Your task to perform on an android device: Search for the best coffee tables on Crate & Barrel Image 0: 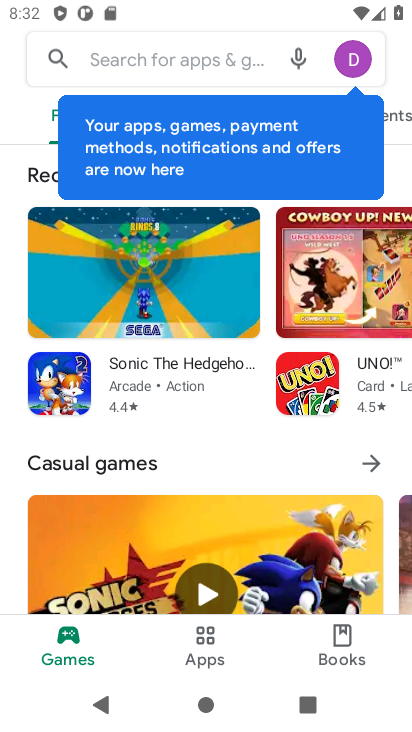
Step 0: press home button
Your task to perform on an android device: Search for the best coffee tables on Crate & Barrel Image 1: 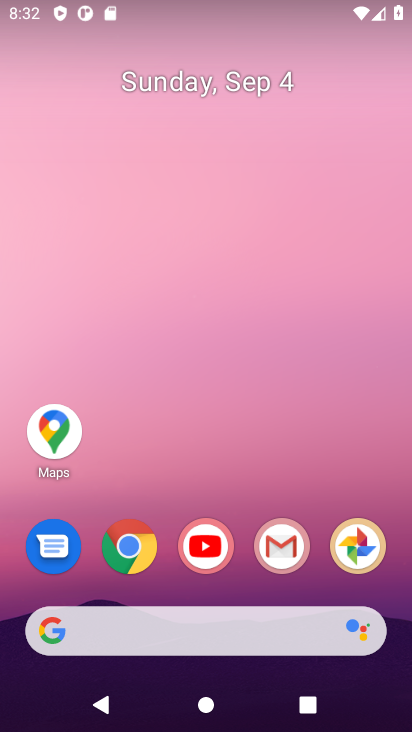
Step 1: click (133, 554)
Your task to perform on an android device: Search for the best coffee tables on Crate & Barrel Image 2: 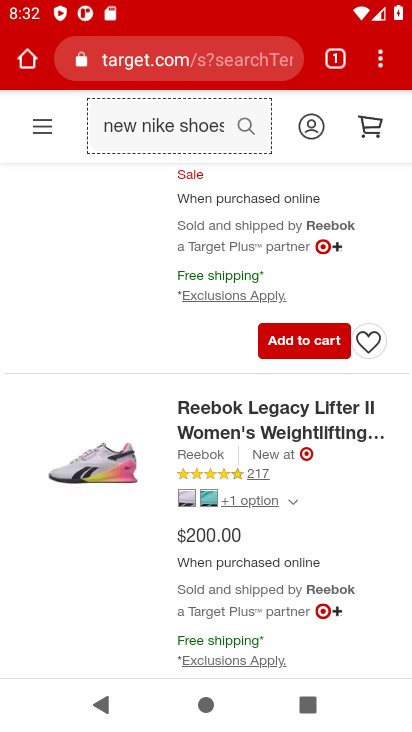
Step 2: click (234, 61)
Your task to perform on an android device: Search for the best coffee tables on Crate & Barrel Image 3: 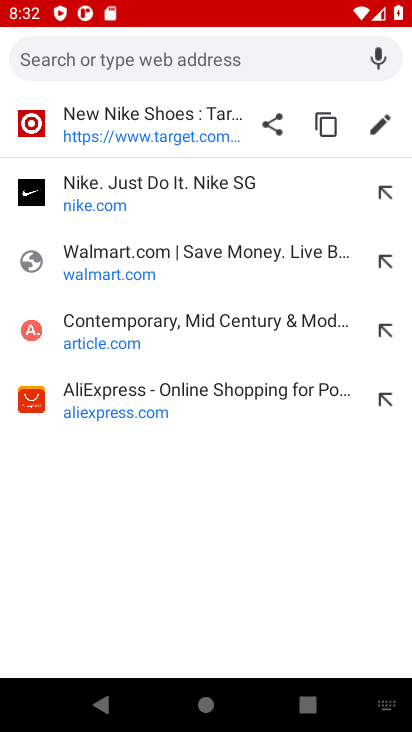
Step 3: type "Crate & Barrel"
Your task to perform on an android device: Search for the best coffee tables on Crate & Barrel Image 4: 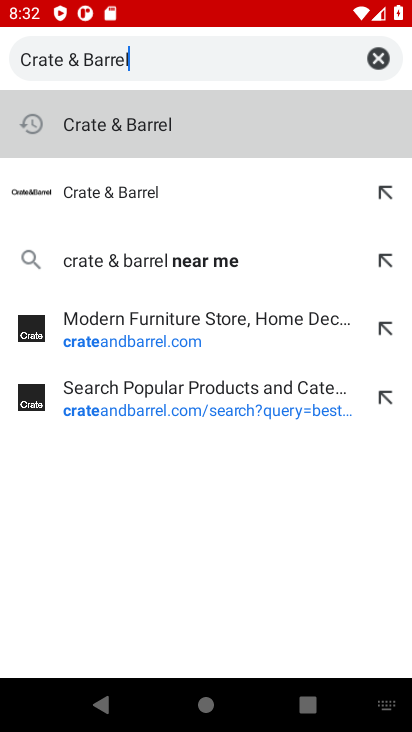
Step 4: click (127, 129)
Your task to perform on an android device: Search for the best coffee tables on Crate & Barrel Image 5: 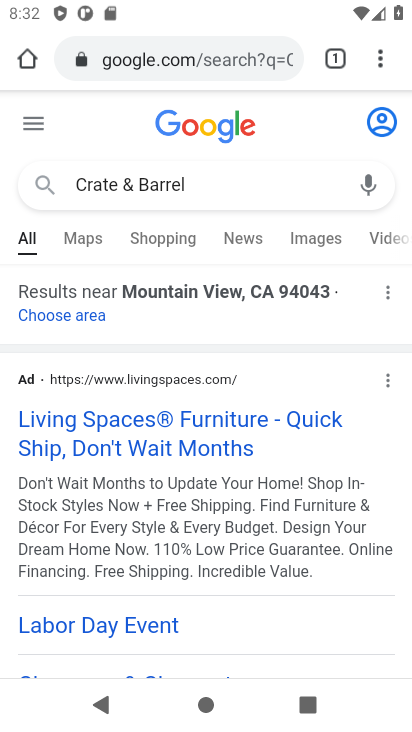
Step 5: drag from (220, 528) to (193, 108)
Your task to perform on an android device: Search for the best coffee tables on Crate & Barrel Image 6: 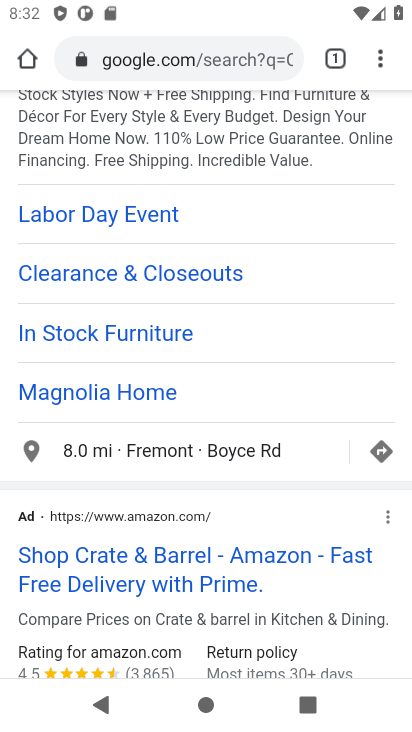
Step 6: drag from (183, 489) to (176, 125)
Your task to perform on an android device: Search for the best coffee tables on Crate & Barrel Image 7: 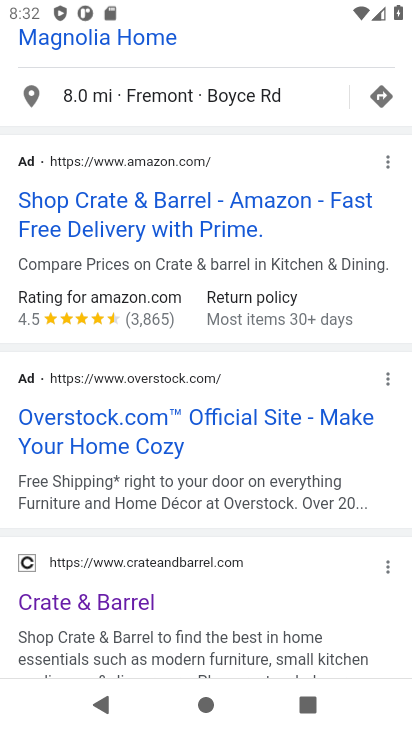
Step 7: click (90, 606)
Your task to perform on an android device: Search for the best coffee tables on Crate & Barrel Image 8: 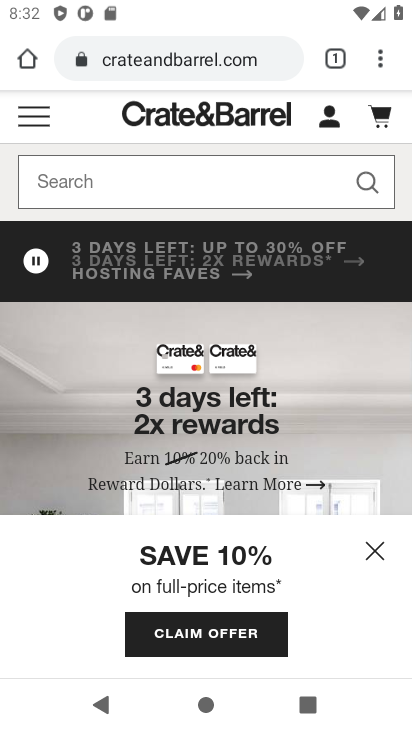
Step 8: click (235, 172)
Your task to perform on an android device: Search for the best coffee tables on Crate & Barrel Image 9: 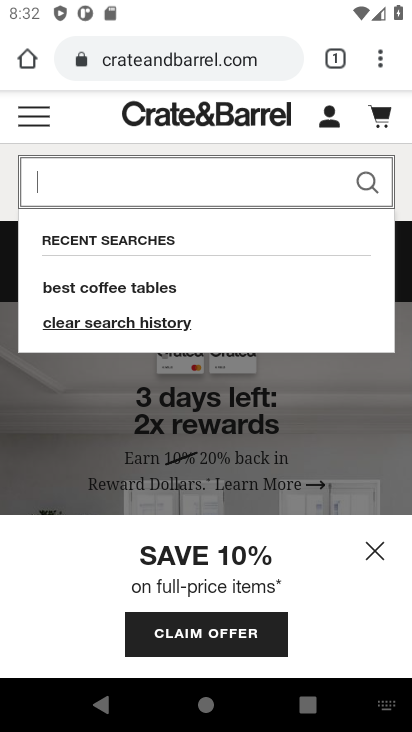
Step 9: type " best coffee tables"
Your task to perform on an android device: Search for the best coffee tables on Crate & Barrel Image 10: 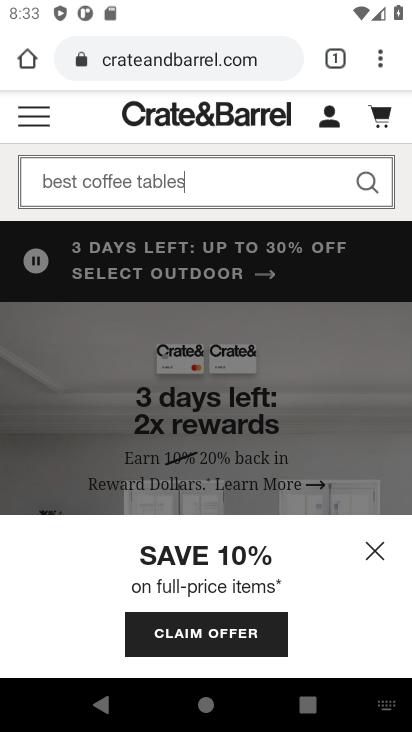
Step 10: click (371, 179)
Your task to perform on an android device: Search for the best coffee tables on Crate & Barrel Image 11: 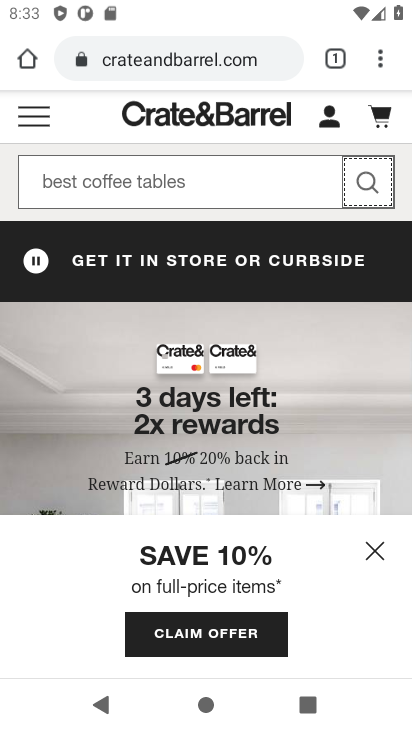
Step 11: click (371, 182)
Your task to perform on an android device: Search for the best coffee tables on Crate & Barrel Image 12: 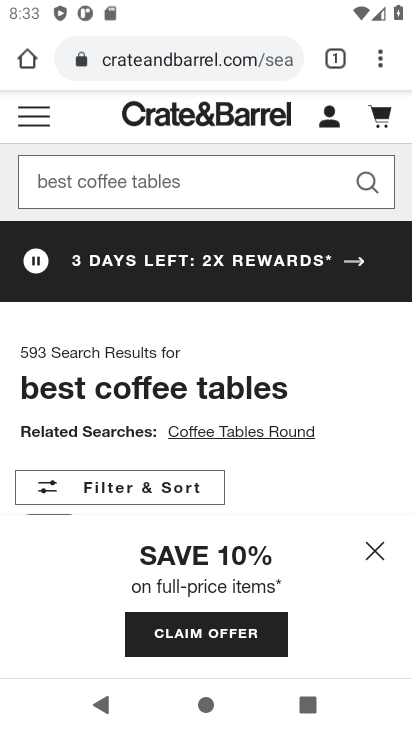
Step 12: task complete